Your task to perform on an android device: delete a single message in the gmail app Image 0: 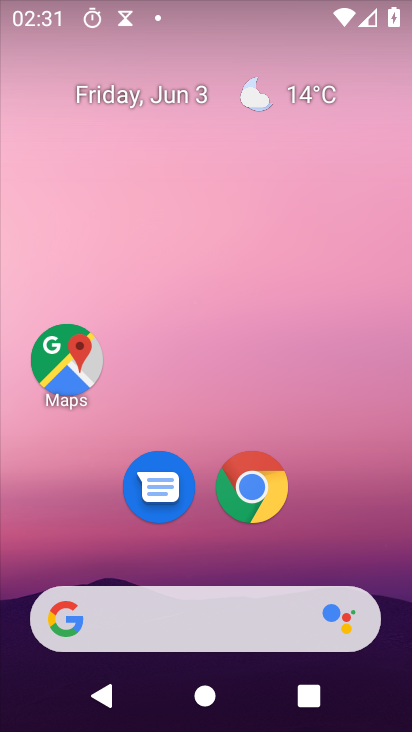
Step 0: drag from (314, 561) to (227, 67)
Your task to perform on an android device: delete a single message in the gmail app Image 1: 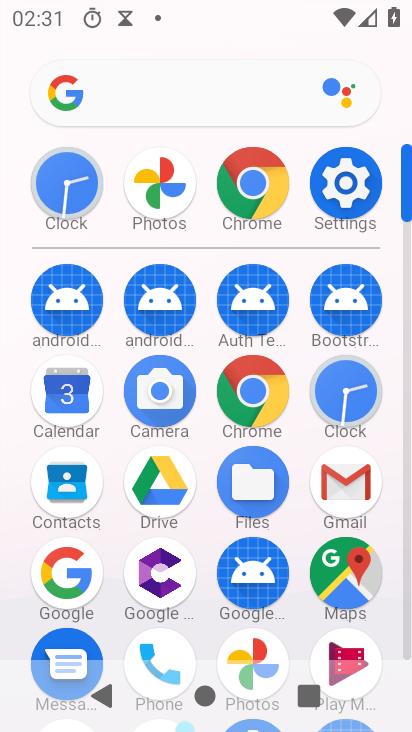
Step 1: click (359, 465)
Your task to perform on an android device: delete a single message in the gmail app Image 2: 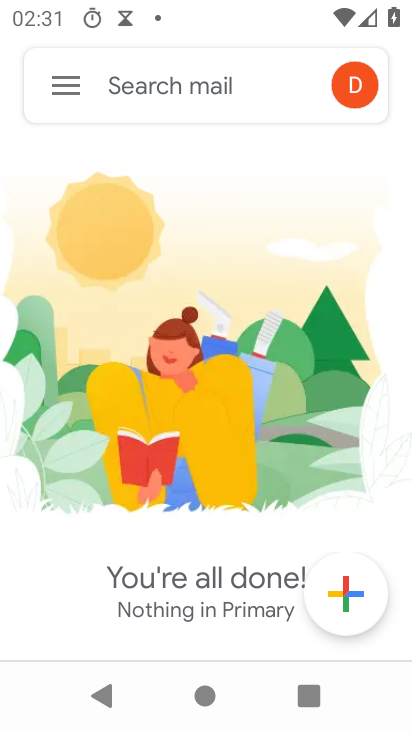
Step 2: click (64, 69)
Your task to perform on an android device: delete a single message in the gmail app Image 3: 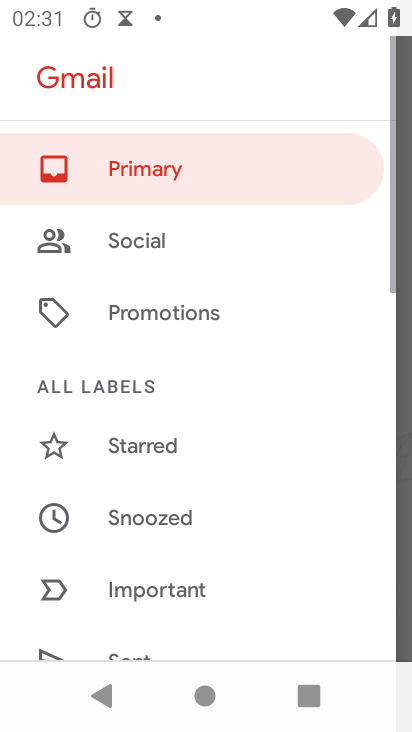
Step 3: drag from (248, 460) to (247, 170)
Your task to perform on an android device: delete a single message in the gmail app Image 4: 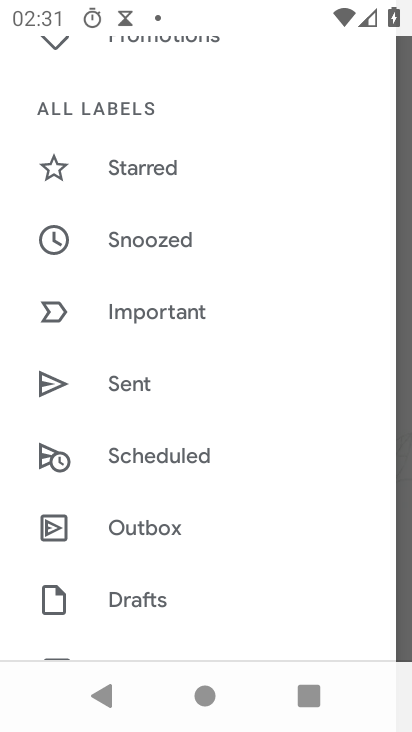
Step 4: drag from (234, 553) to (239, 233)
Your task to perform on an android device: delete a single message in the gmail app Image 5: 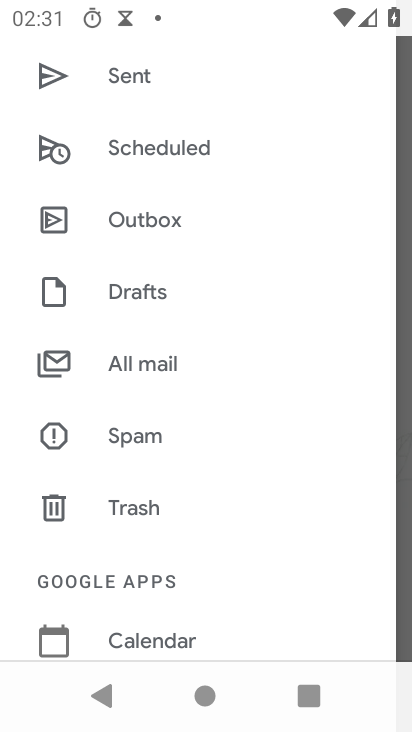
Step 5: click (177, 357)
Your task to perform on an android device: delete a single message in the gmail app Image 6: 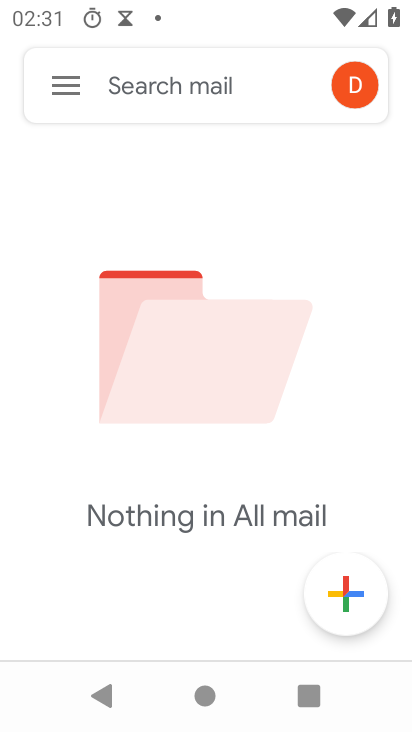
Step 6: task complete